Your task to perform on an android device: Go to location settings Image 0: 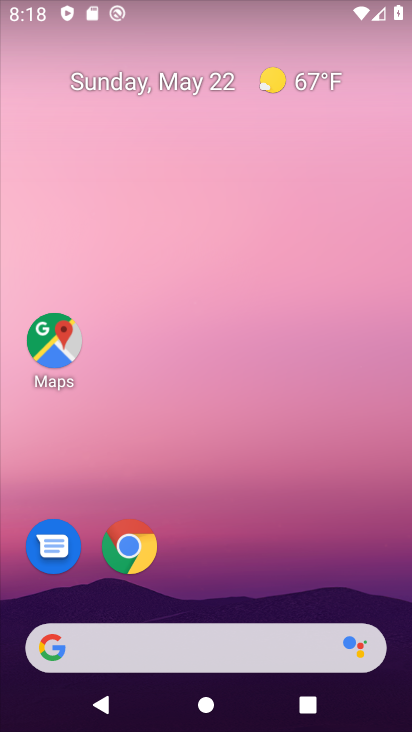
Step 0: drag from (273, 274) to (314, 6)
Your task to perform on an android device: Go to location settings Image 1: 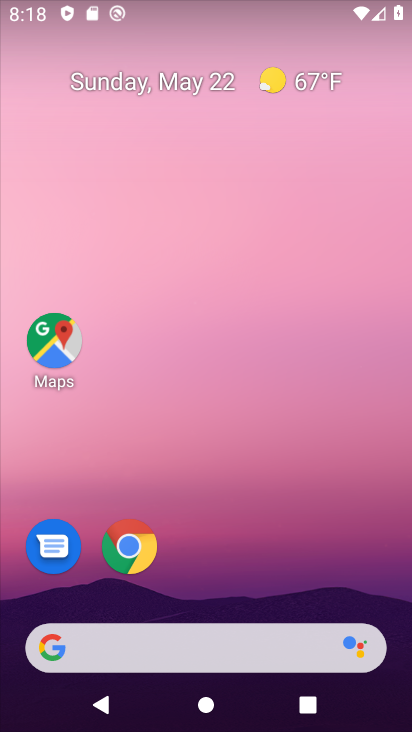
Step 1: drag from (193, 519) to (191, 9)
Your task to perform on an android device: Go to location settings Image 2: 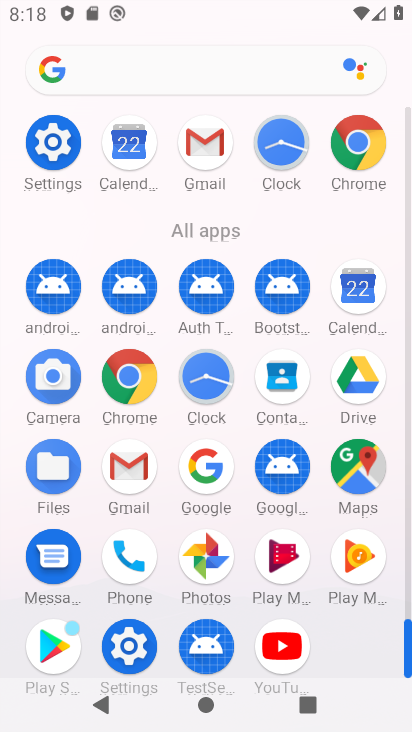
Step 2: click (55, 145)
Your task to perform on an android device: Go to location settings Image 3: 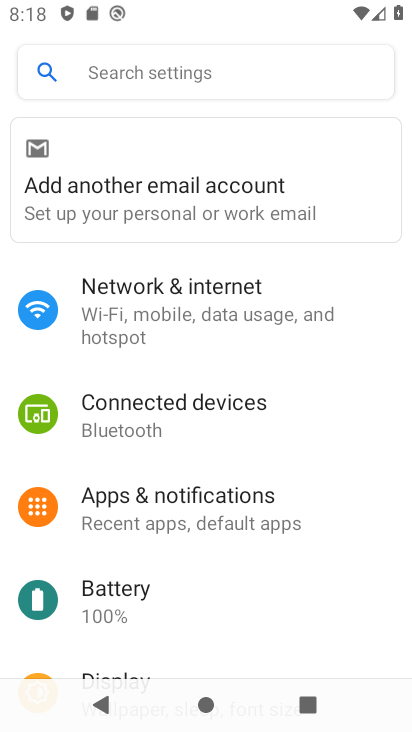
Step 3: drag from (190, 572) to (229, 265)
Your task to perform on an android device: Go to location settings Image 4: 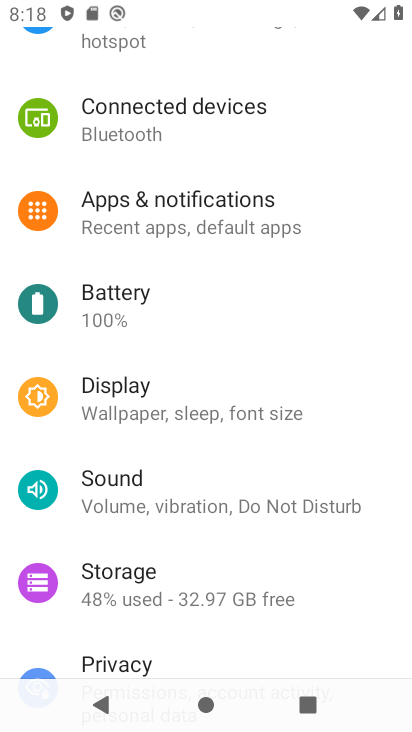
Step 4: drag from (199, 515) to (224, 138)
Your task to perform on an android device: Go to location settings Image 5: 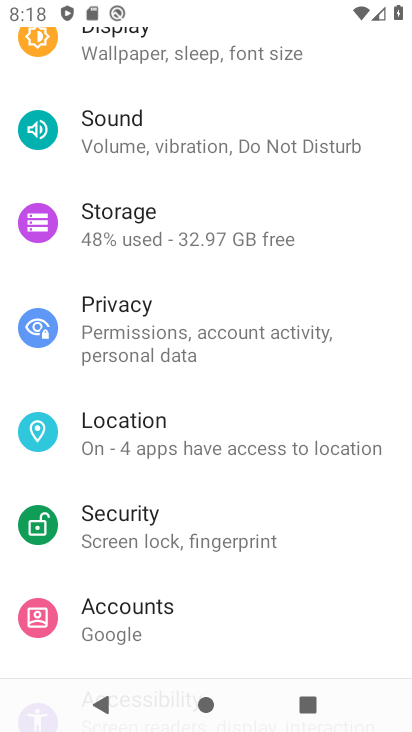
Step 5: click (172, 442)
Your task to perform on an android device: Go to location settings Image 6: 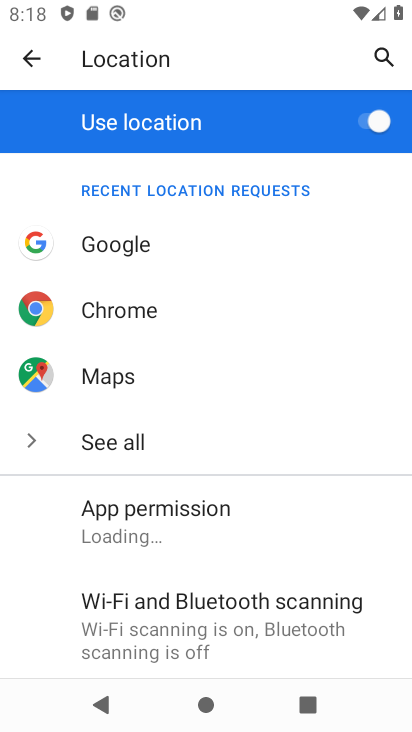
Step 6: task complete